Your task to perform on an android device: What's the weather? Image 0: 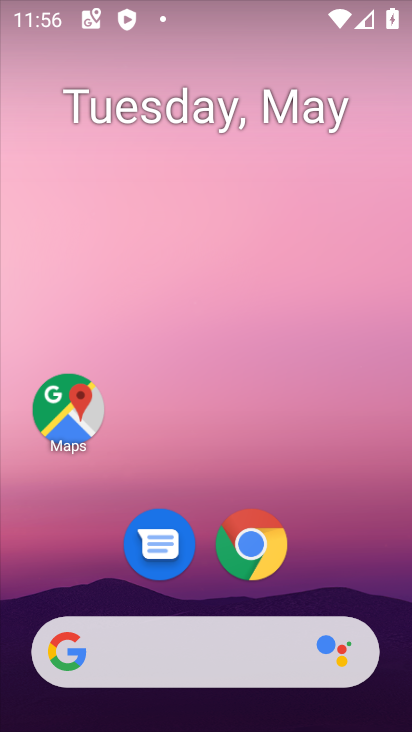
Step 0: drag from (296, 491) to (196, 157)
Your task to perform on an android device: What's the weather? Image 1: 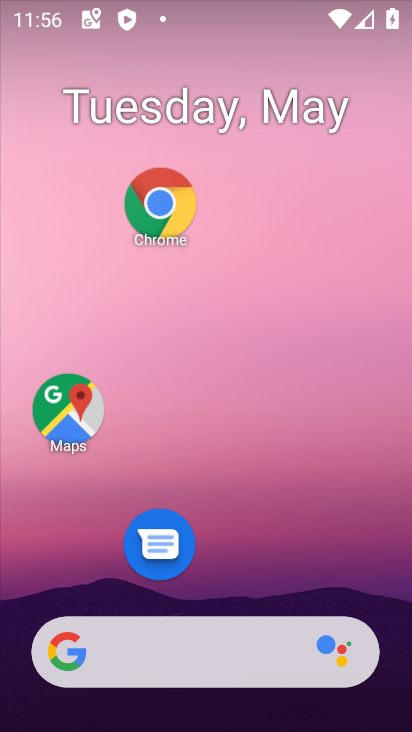
Step 1: drag from (377, 621) to (110, 61)
Your task to perform on an android device: What's the weather? Image 2: 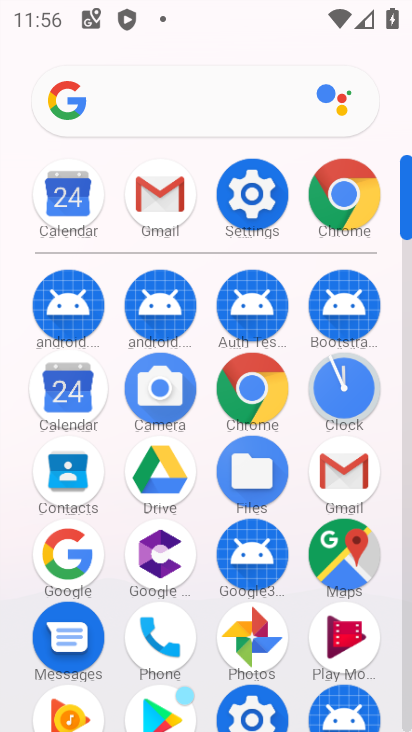
Step 2: press back button
Your task to perform on an android device: What's the weather? Image 3: 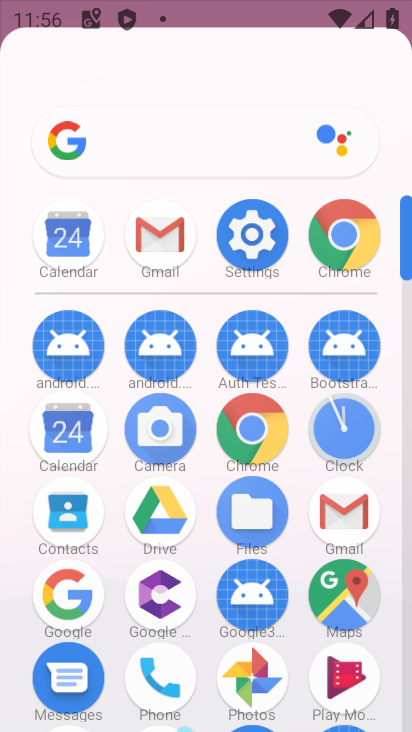
Step 3: press back button
Your task to perform on an android device: What's the weather? Image 4: 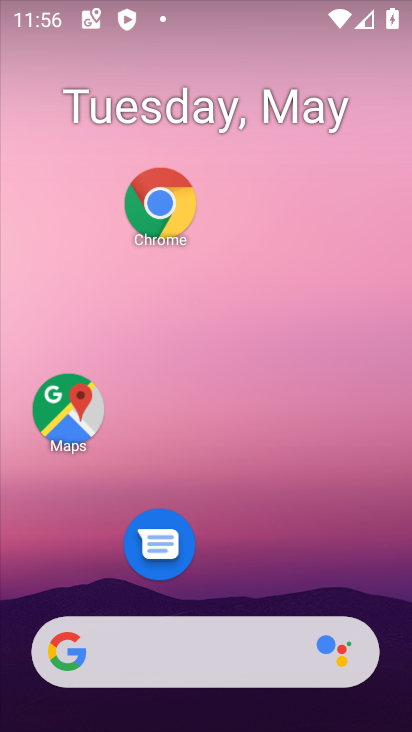
Step 4: press back button
Your task to perform on an android device: What's the weather? Image 5: 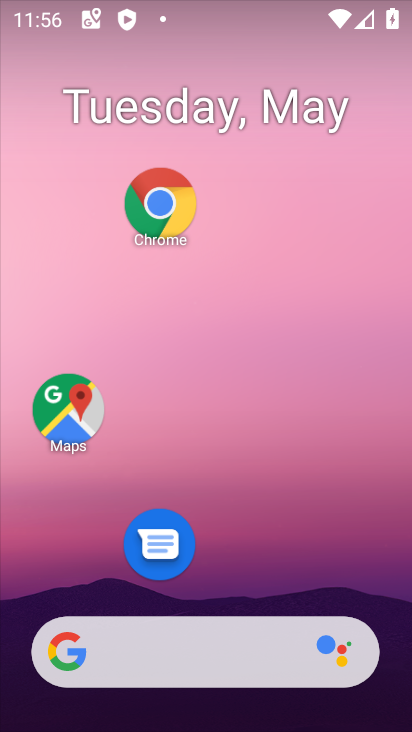
Step 5: drag from (1, 177) to (410, 362)
Your task to perform on an android device: What's the weather? Image 6: 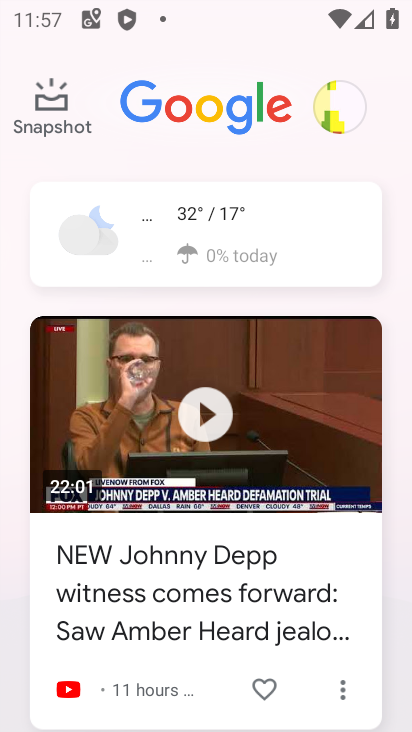
Step 6: drag from (195, 474) to (228, 162)
Your task to perform on an android device: What's the weather? Image 7: 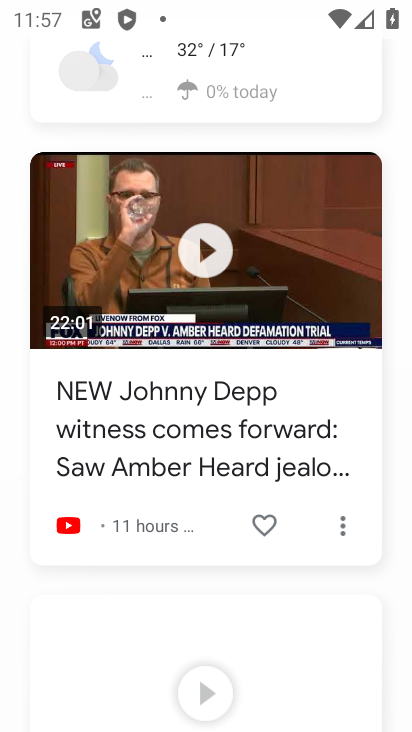
Step 7: drag from (234, 525) to (267, 257)
Your task to perform on an android device: What's the weather? Image 8: 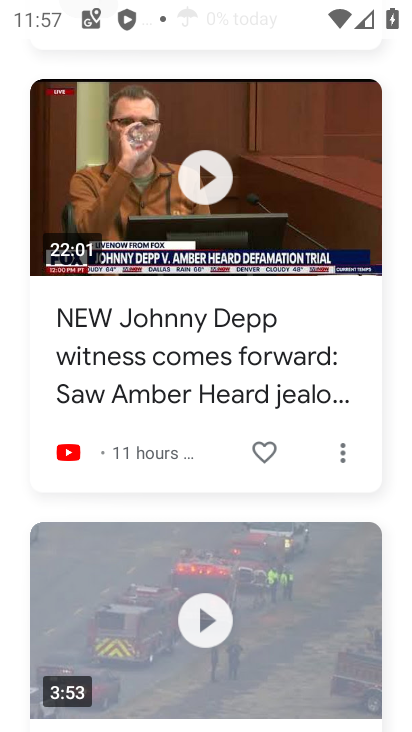
Step 8: drag from (230, 545) to (251, 280)
Your task to perform on an android device: What's the weather? Image 9: 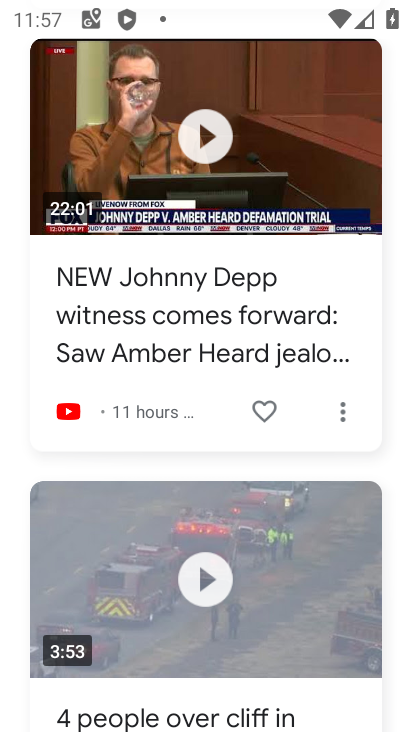
Step 9: drag from (180, 269) to (228, 555)
Your task to perform on an android device: What's the weather? Image 10: 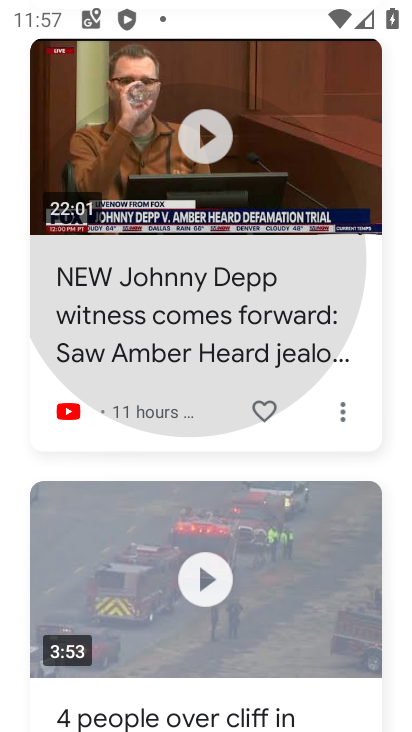
Step 10: drag from (179, 224) to (189, 546)
Your task to perform on an android device: What's the weather? Image 11: 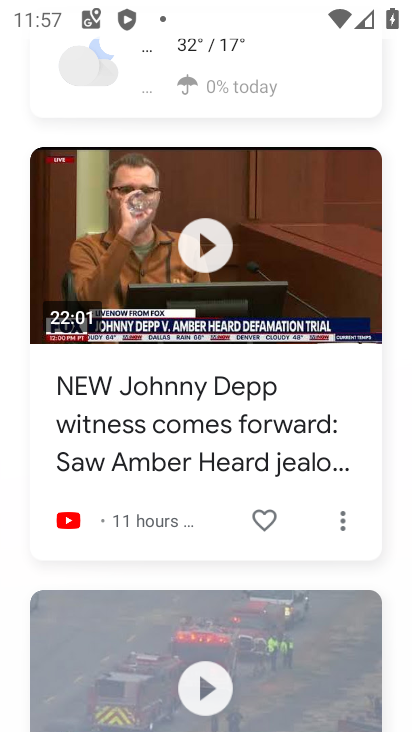
Step 11: click (216, 78)
Your task to perform on an android device: What's the weather? Image 12: 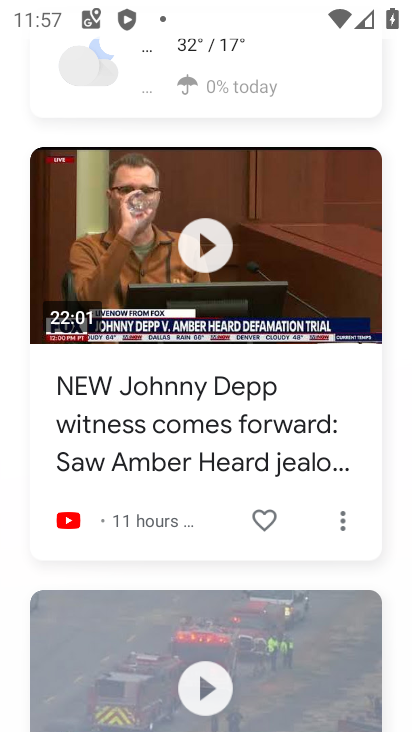
Step 12: click (217, 77)
Your task to perform on an android device: What's the weather? Image 13: 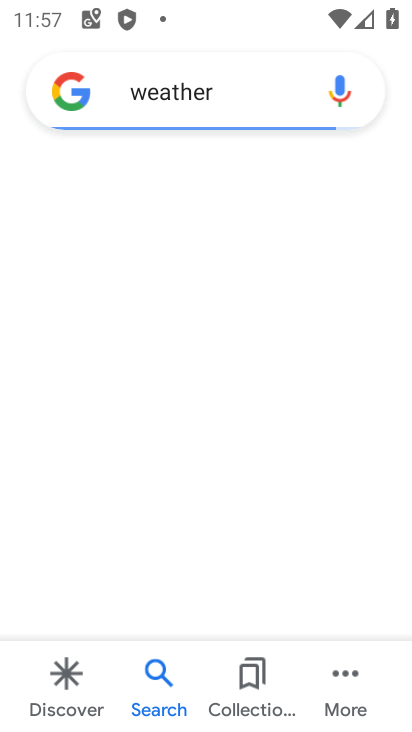
Step 13: task complete